Your task to perform on an android device: Open calendar and show me the fourth week of next month Image 0: 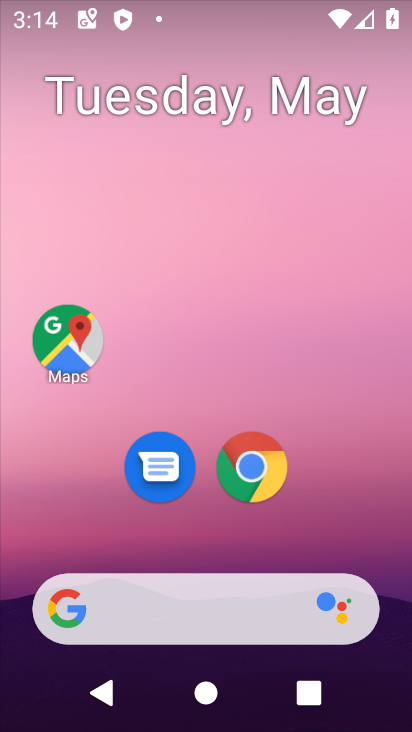
Step 0: drag from (355, 471) to (319, 79)
Your task to perform on an android device: Open calendar and show me the fourth week of next month Image 1: 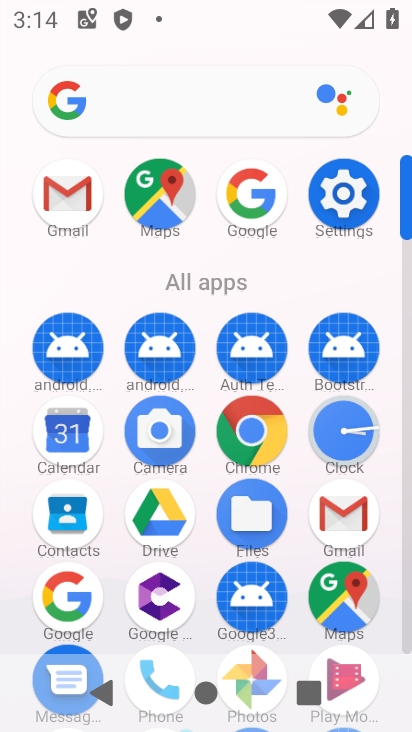
Step 1: click (74, 437)
Your task to perform on an android device: Open calendar and show me the fourth week of next month Image 2: 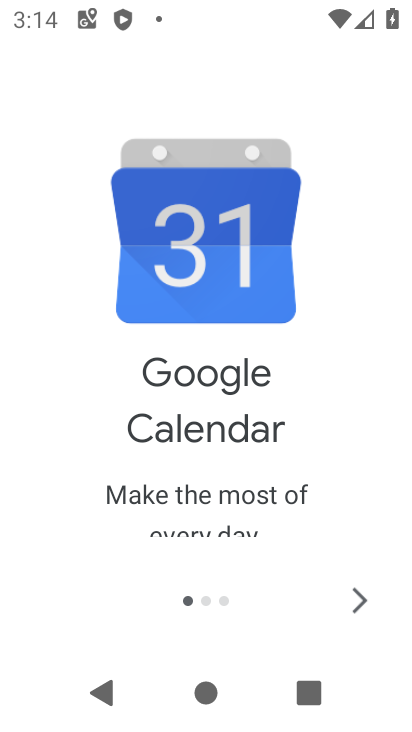
Step 2: click (356, 600)
Your task to perform on an android device: Open calendar and show me the fourth week of next month Image 3: 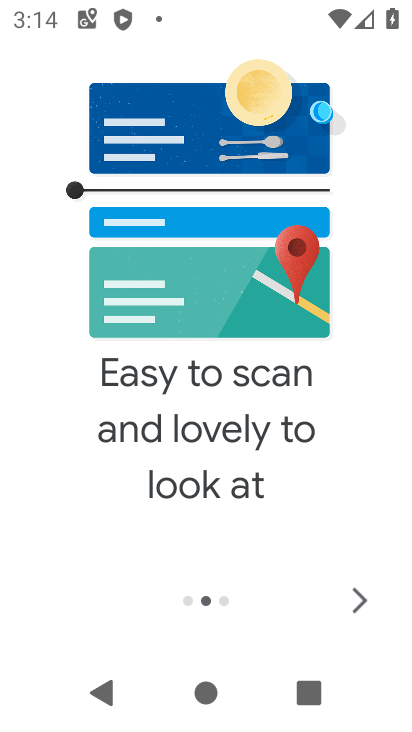
Step 3: click (364, 596)
Your task to perform on an android device: Open calendar and show me the fourth week of next month Image 4: 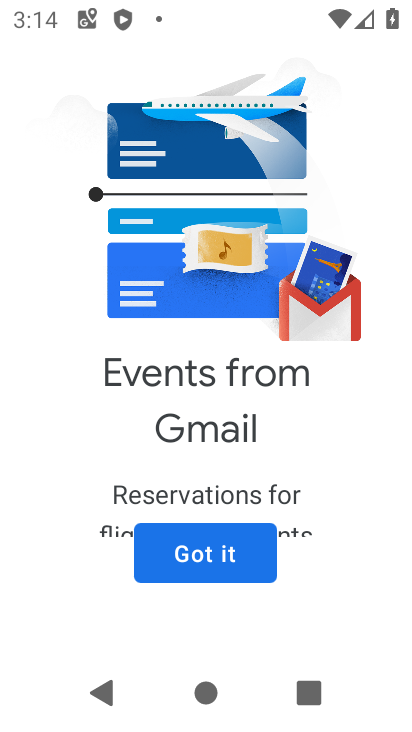
Step 4: click (238, 546)
Your task to perform on an android device: Open calendar and show me the fourth week of next month Image 5: 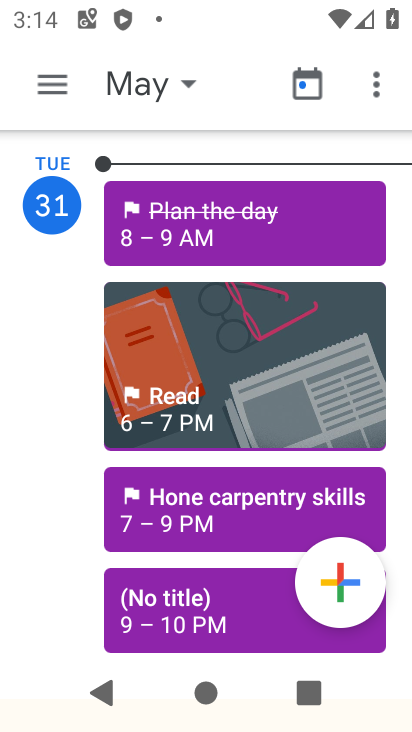
Step 5: click (46, 92)
Your task to perform on an android device: Open calendar and show me the fourth week of next month Image 6: 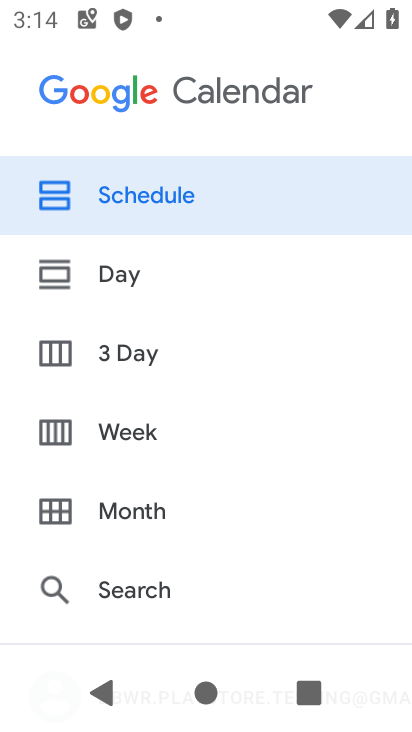
Step 6: click (172, 506)
Your task to perform on an android device: Open calendar and show me the fourth week of next month Image 7: 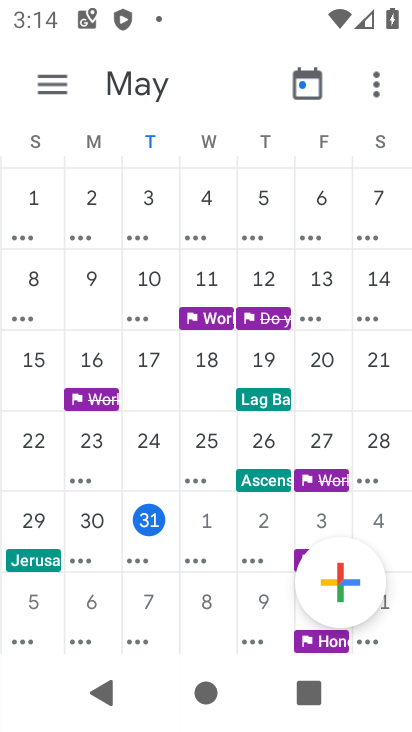
Step 7: drag from (328, 394) to (84, 365)
Your task to perform on an android device: Open calendar and show me the fourth week of next month Image 8: 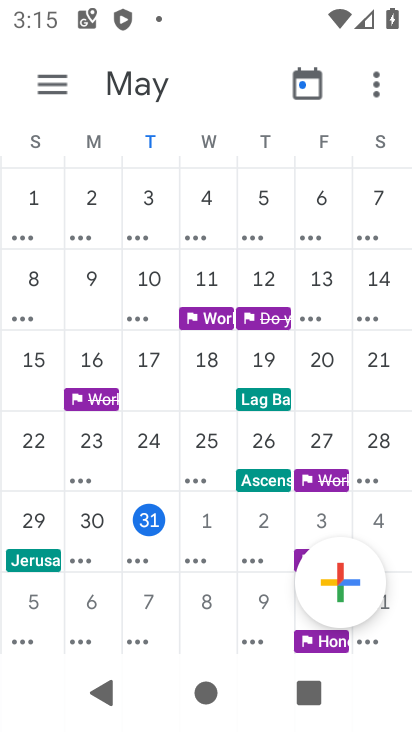
Step 8: drag from (355, 341) to (11, 291)
Your task to perform on an android device: Open calendar and show me the fourth week of next month Image 9: 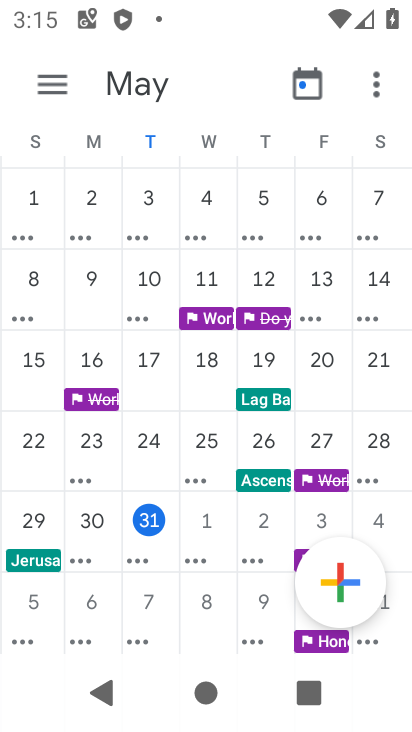
Step 9: drag from (369, 407) to (3, 409)
Your task to perform on an android device: Open calendar and show me the fourth week of next month Image 10: 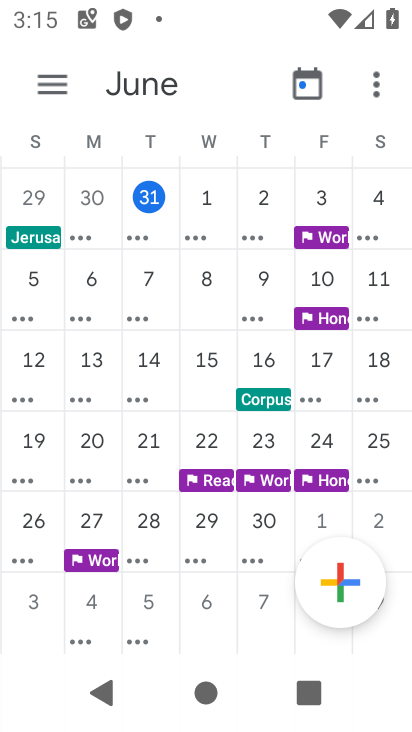
Step 10: click (74, 440)
Your task to perform on an android device: Open calendar and show me the fourth week of next month Image 11: 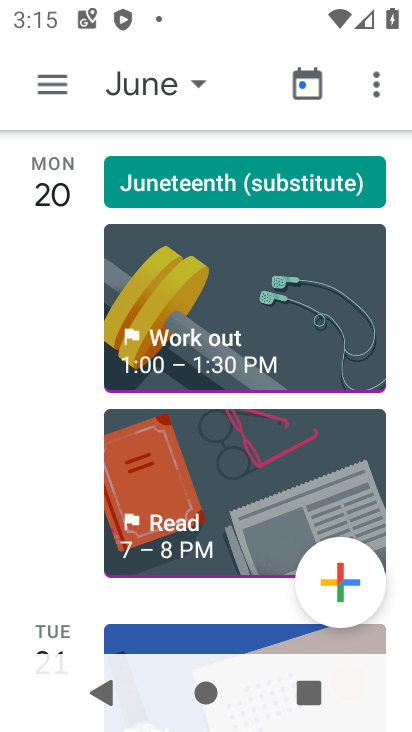
Step 11: task complete